Your task to perform on an android device: check storage Image 0: 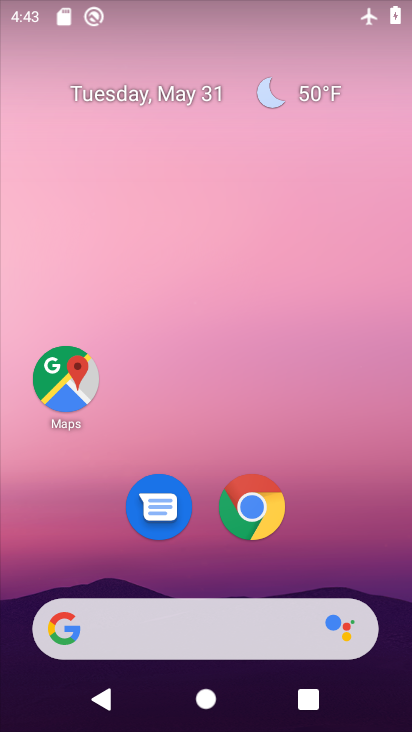
Step 0: drag from (328, 551) to (385, 44)
Your task to perform on an android device: check storage Image 1: 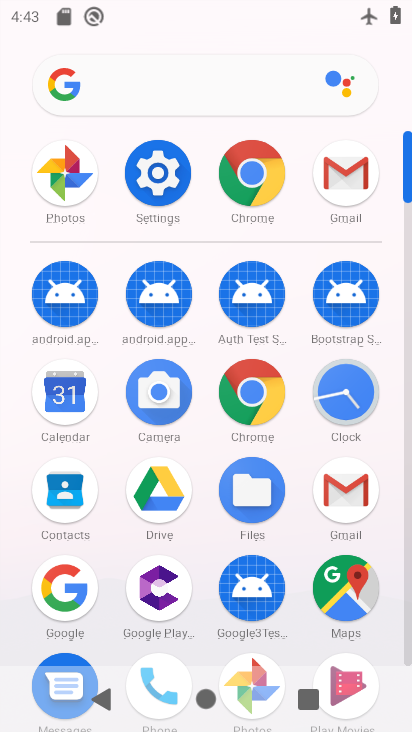
Step 1: click (172, 186)
Your task to perform on an android device: check storage Image 2: 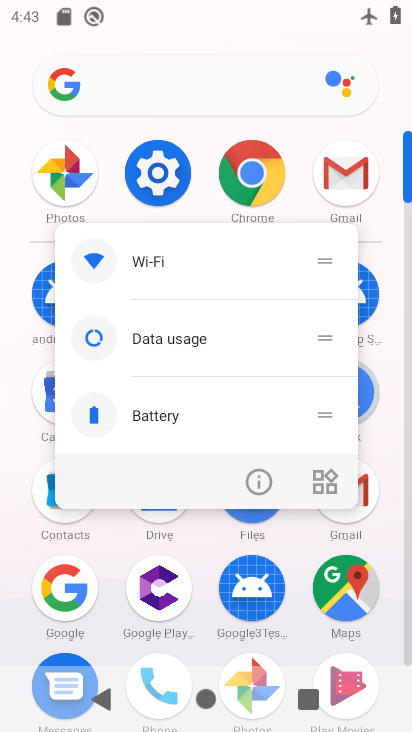
Step 2: click (158, 183)
Your task to perform on an android device: check storage Image 3: 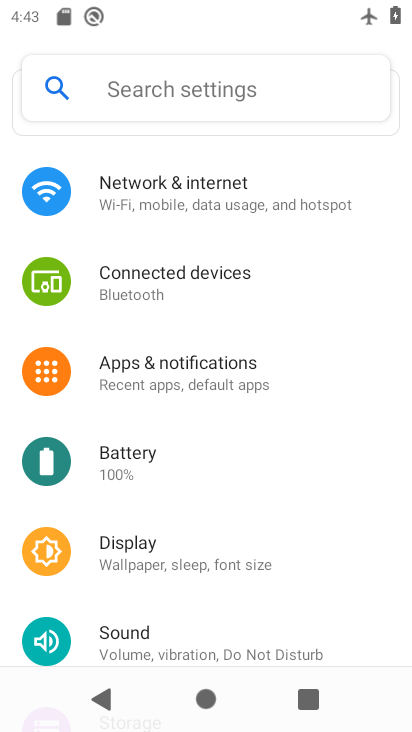
Step 3: drag from (226, 578) to (287, 198)
Your task to perform on an android device: check storage Image 4: 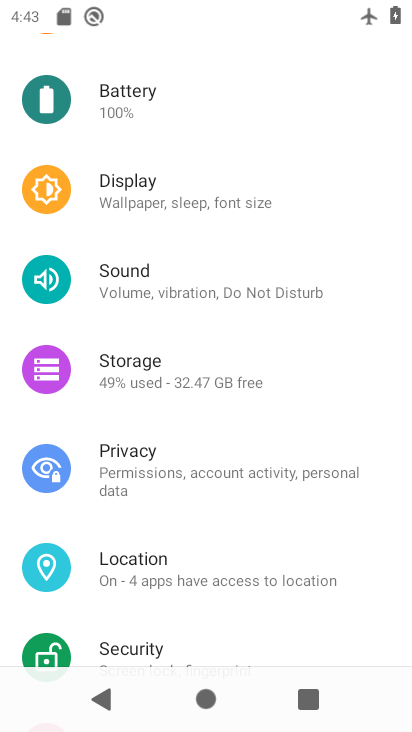
Step 4: click (214, 384)
Your task to perform on an android device: check storage Image 5: 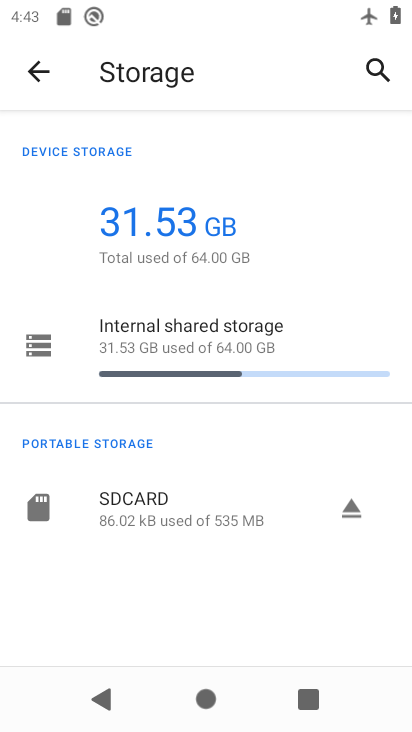
Step 5: task complete